Your task to perform on an android device: install app "VLC for Android" Image 0: 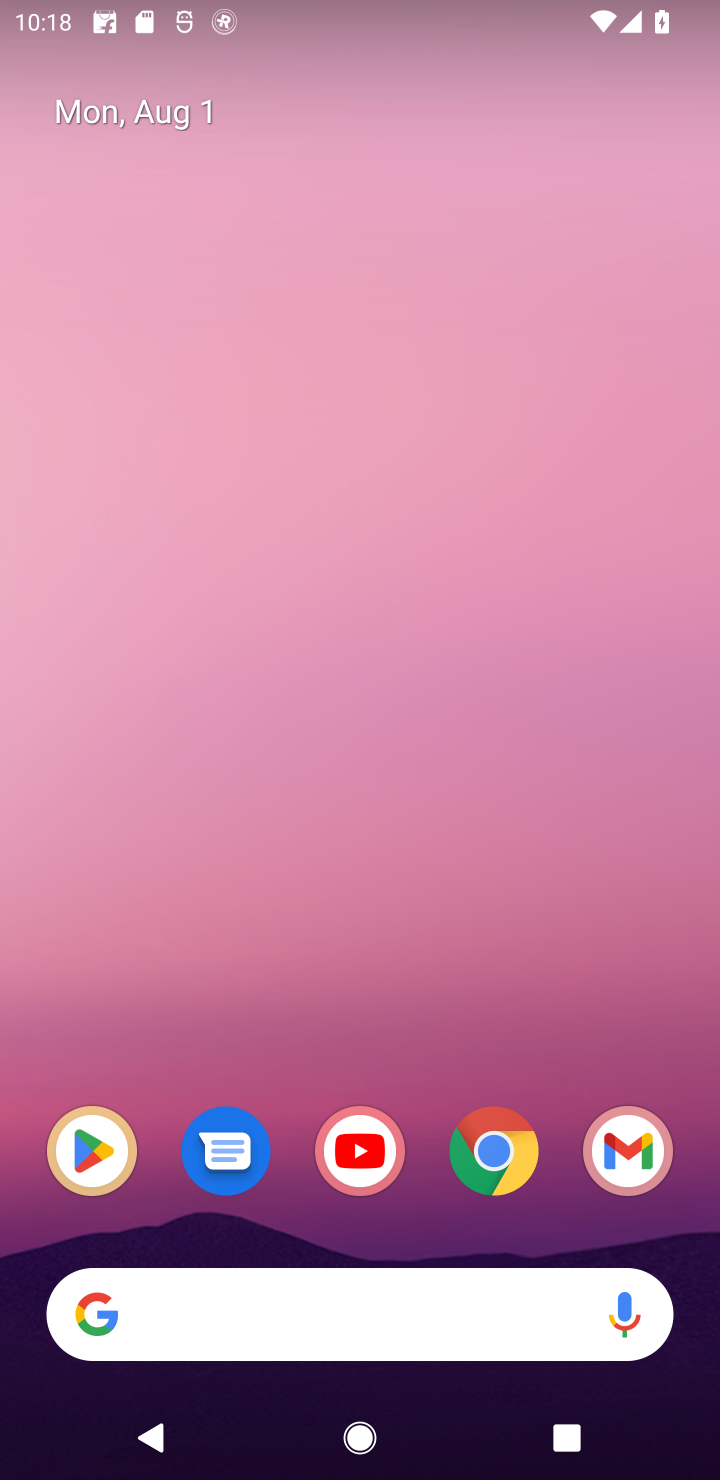
Step 0: click (92, 1160)
Your task to perform on an android device: install app "VLC for Android" Image 1: 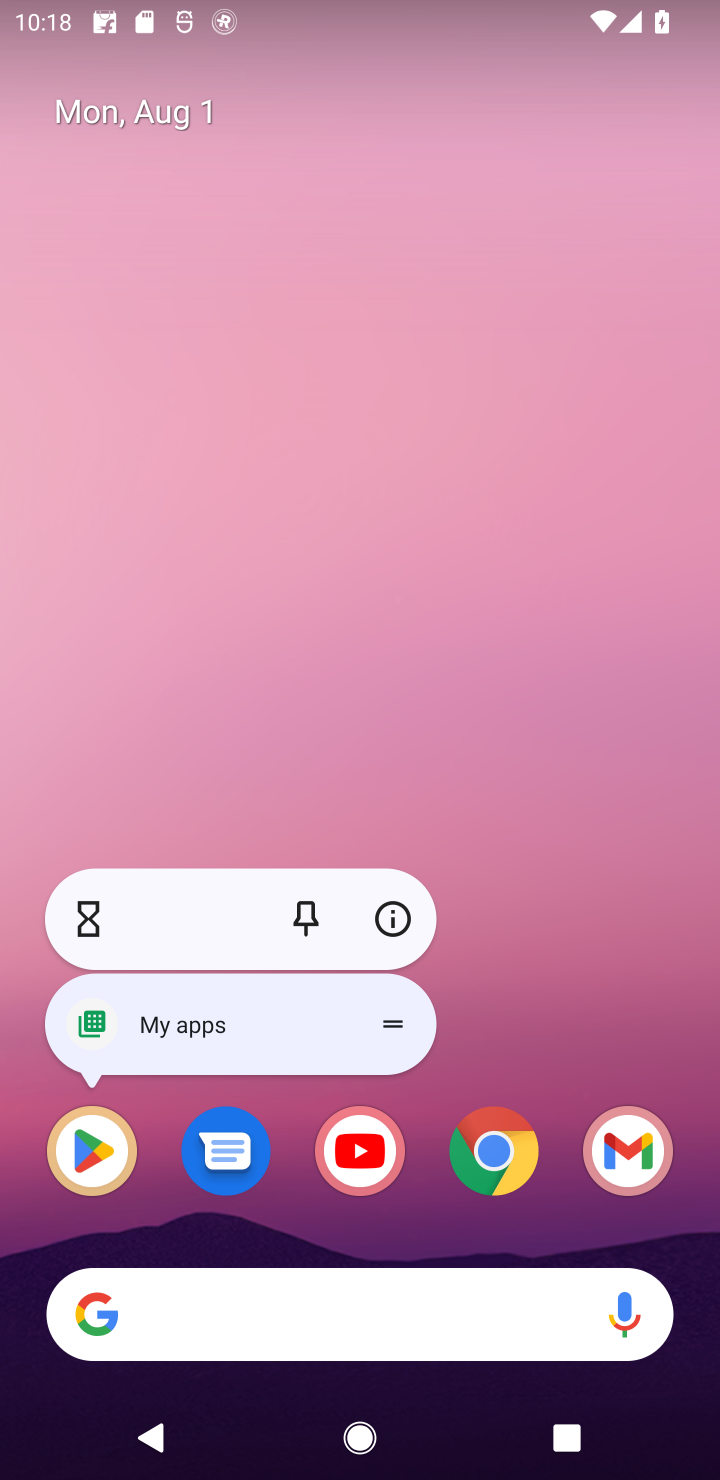
Step 1: click (92, 1160)
Your task to perform on an android device: install app "VLC for Android" Image 2: 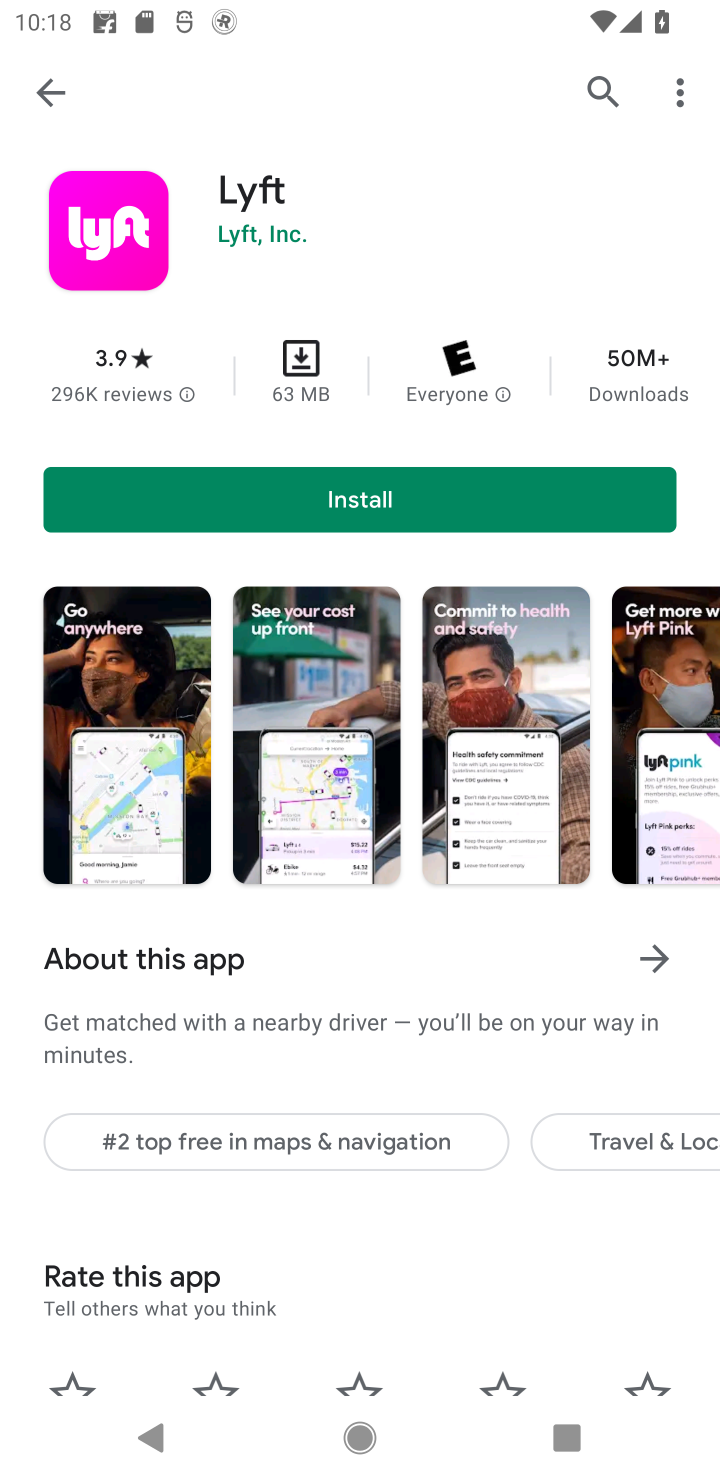
Step 2: click (603, 108)
Your task to perform on an android device: install app "VLC for Android" Image 3: 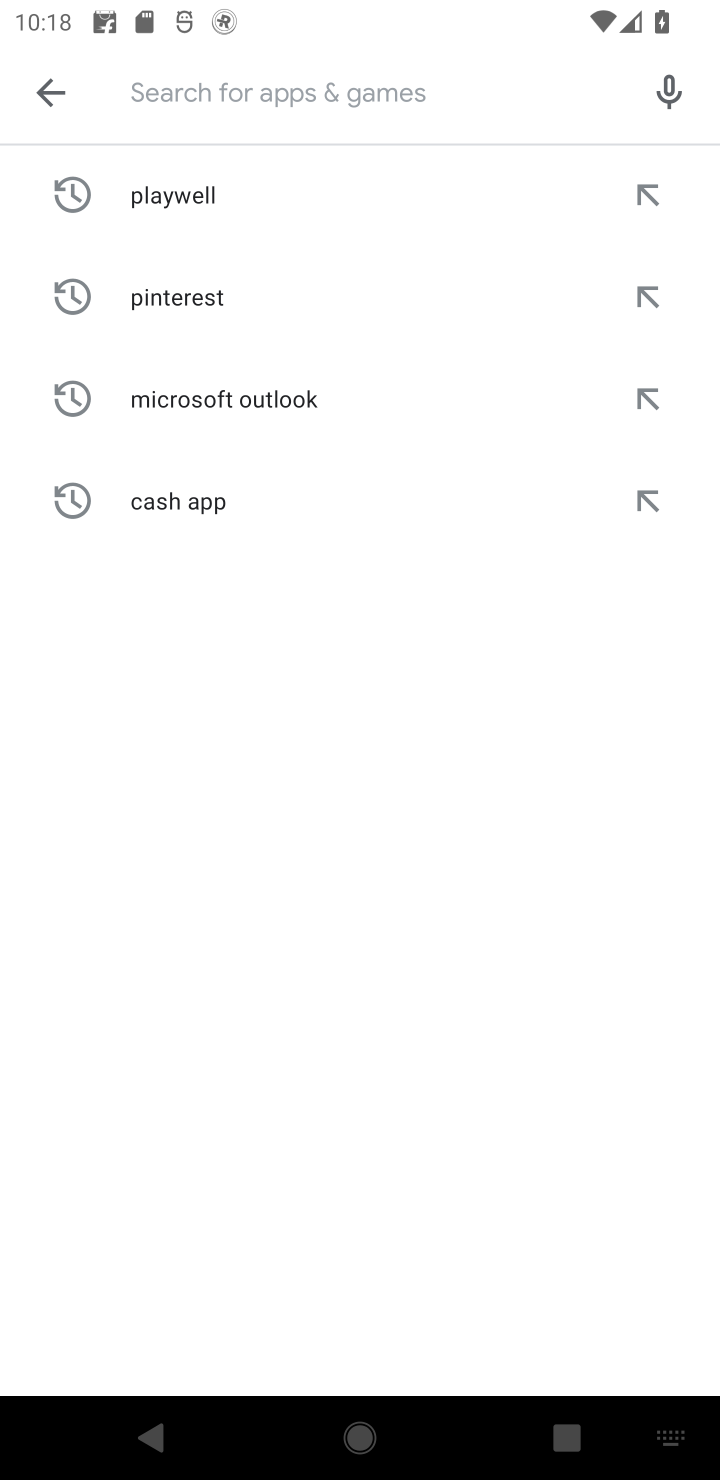
Step 3: type "VLC for Android"
Your task to perform on an android device: install app "VLC for Android" Image 4: 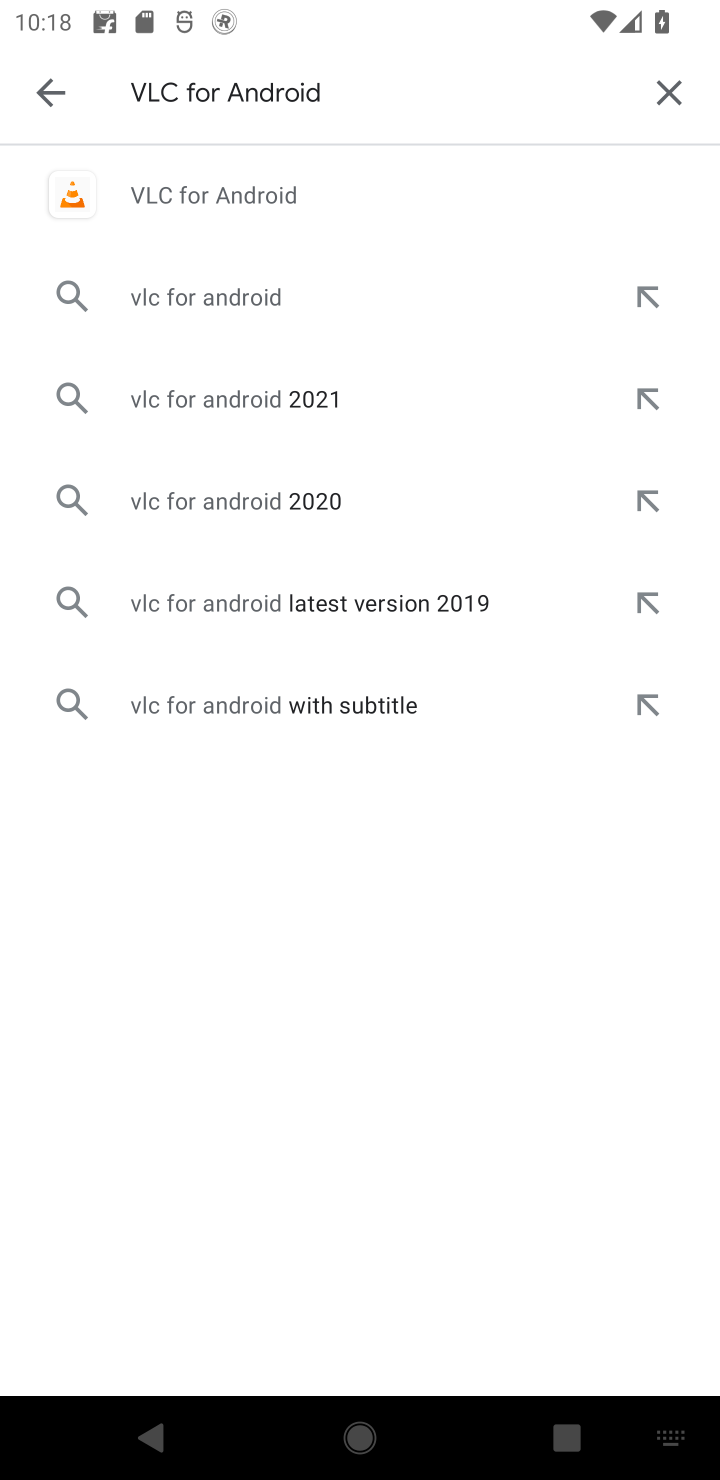
Step 4: click (376, 214)
Your task to perform on an android device: install app "VLC for Android" Image 5: 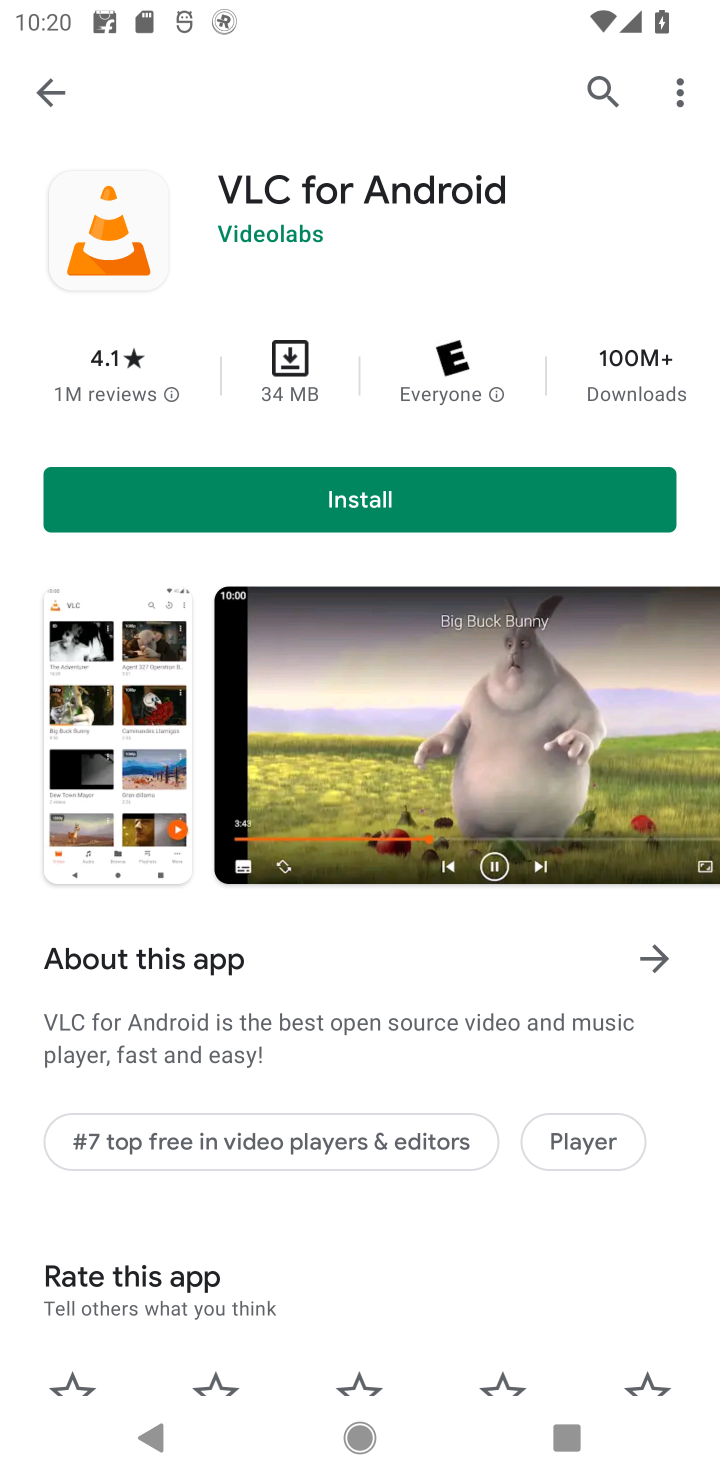
Step 5: click (586, 492)
Your task to perform on an android device: install app "VLC for Android" Image 6: 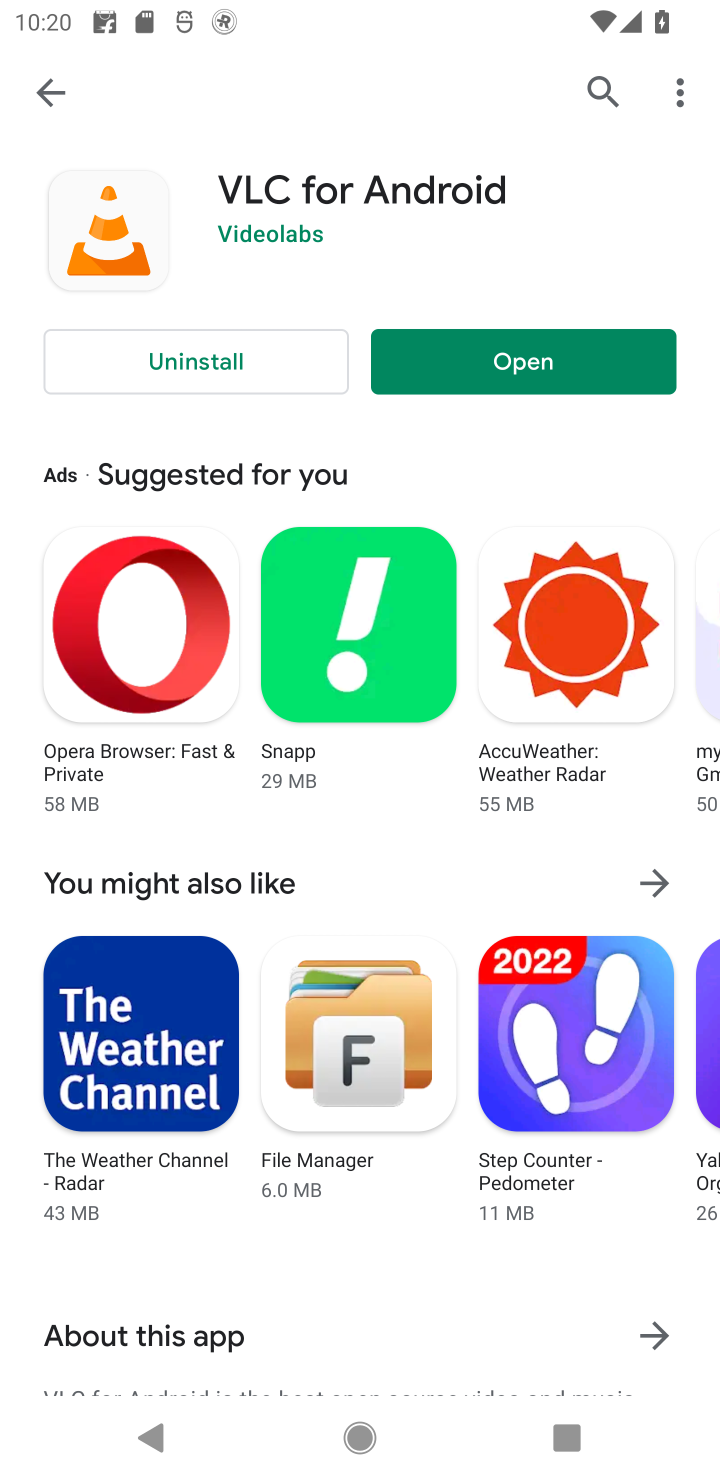
Step 6: task complete